Your task to perform on an android device: Go to battery settings Image 0: 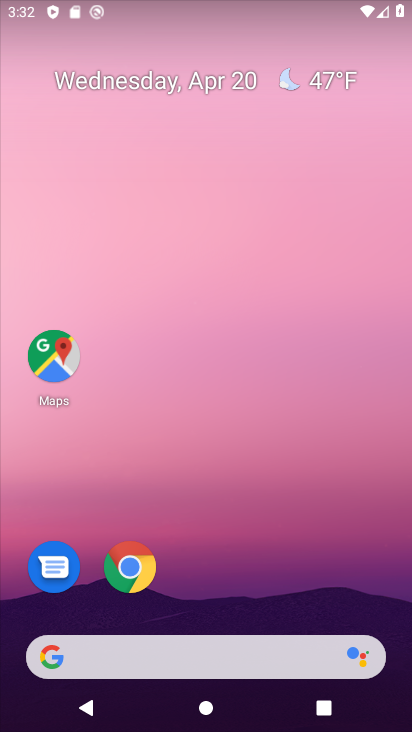
Step 0: drag from (251, 20) to (319, 595)
Your task to perform on an android device: Go to battery settings Image 1: 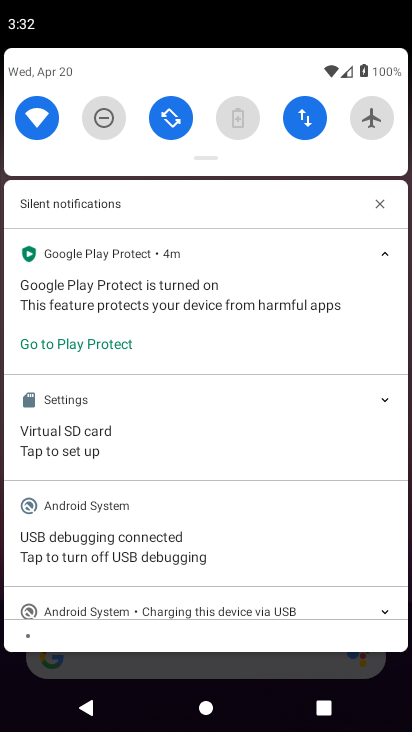
Step 1: drag from (185, 71) to (284, 540)
Your task to perform on an android device: Go to battery settings Image 2: 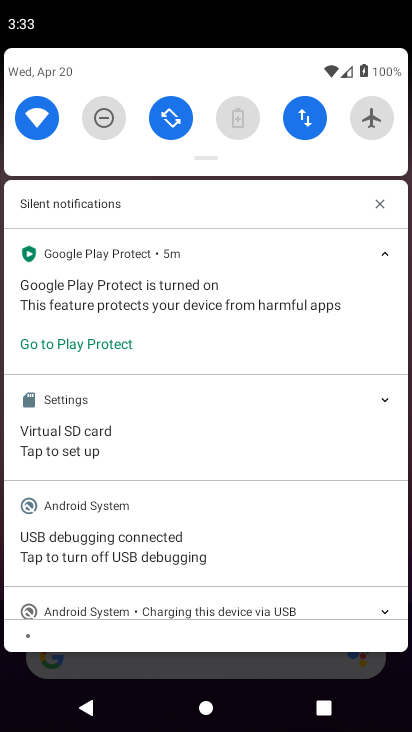
Step 2: drag from (249, 85) to (275, 696)
Your task to perform on an android device: Go to battery settings Image 3: 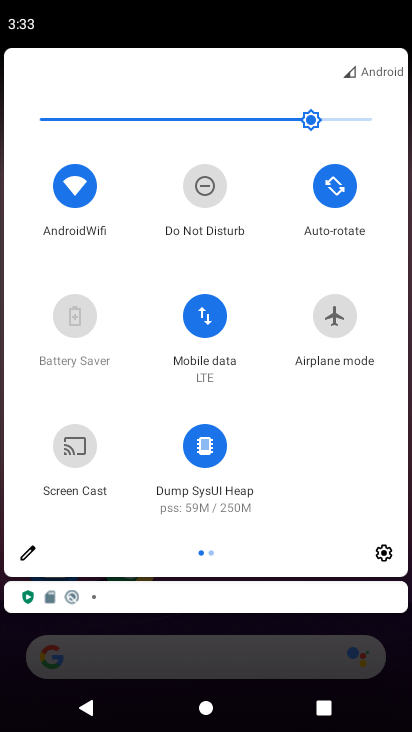
Step 3: click (383, 548)
Your task to perform on an android device: Go to battery settings Image 4: 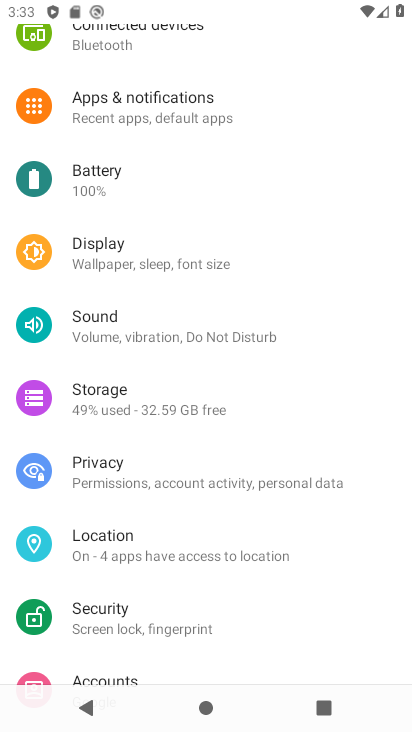
Step 4: click (97, 191)
Your task to perform on an android device: Go to battery settings Image 5: 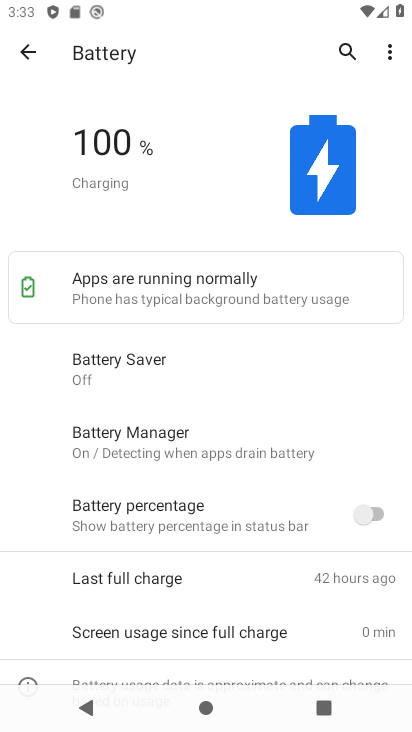
Step 5: task complete